Your task to perform on an android device: change the upload size in google photos Image 0: 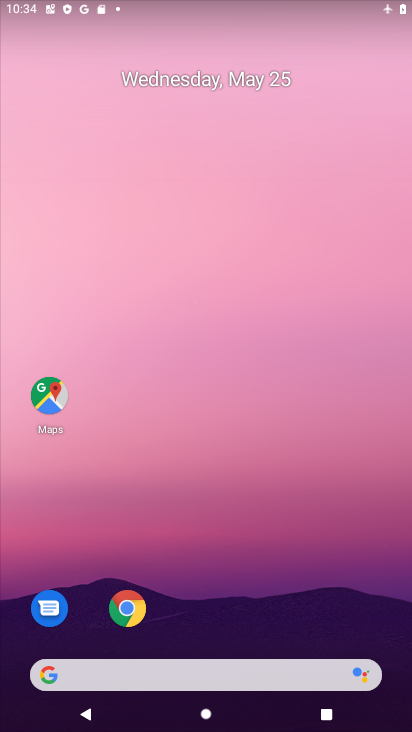
Step 0: drag from (279, 499) to (264, 10)
Your task to perform on an android device: change the upload size in google photos Image 1: 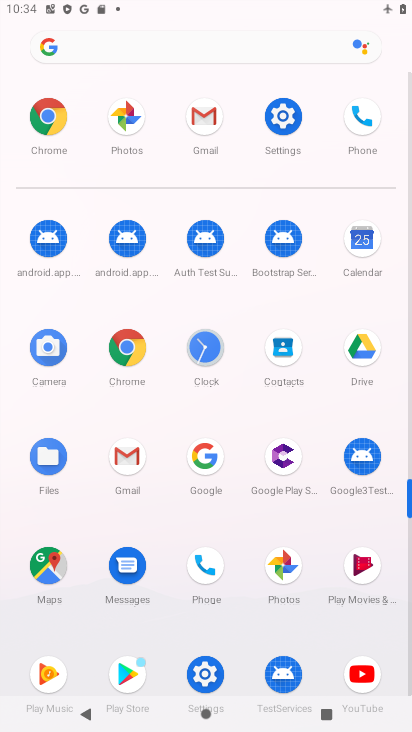
Step 1: click (119, 122)
Your task to perform on an android device: change the upload size in google photos Image 2: 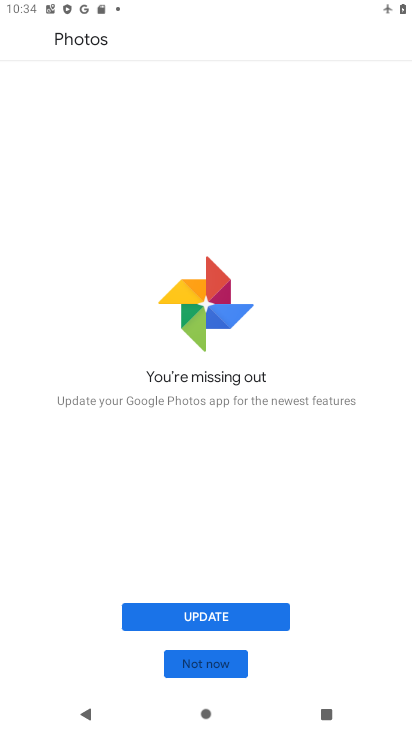
Step 2: click (202, 671)
Your task to perform on an android device: change the upload size in google photos Image 3: 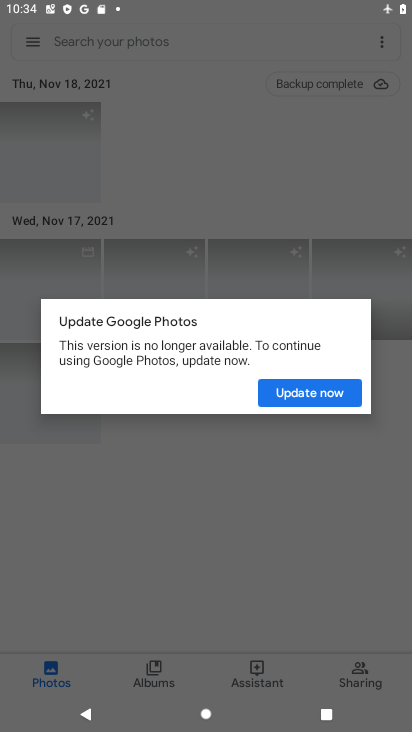
Step 3: click (284, 393)
Your task to perform on an android device: change the upload size in google photos Image 4: 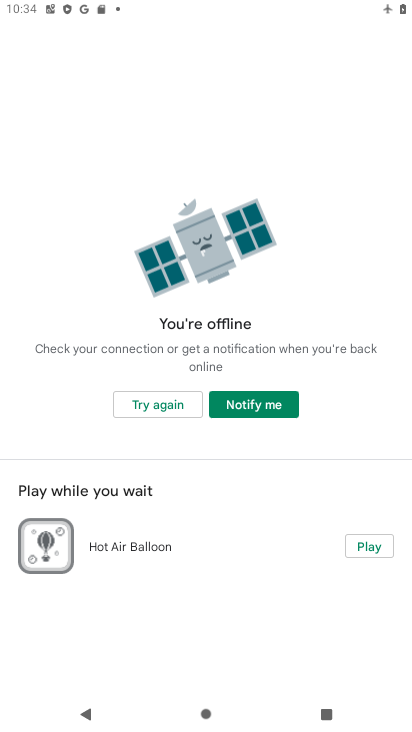
Step 4: task complete